Your task to perform on an android device: Open the Play Movies app and select the watchlist tab. Image 0: 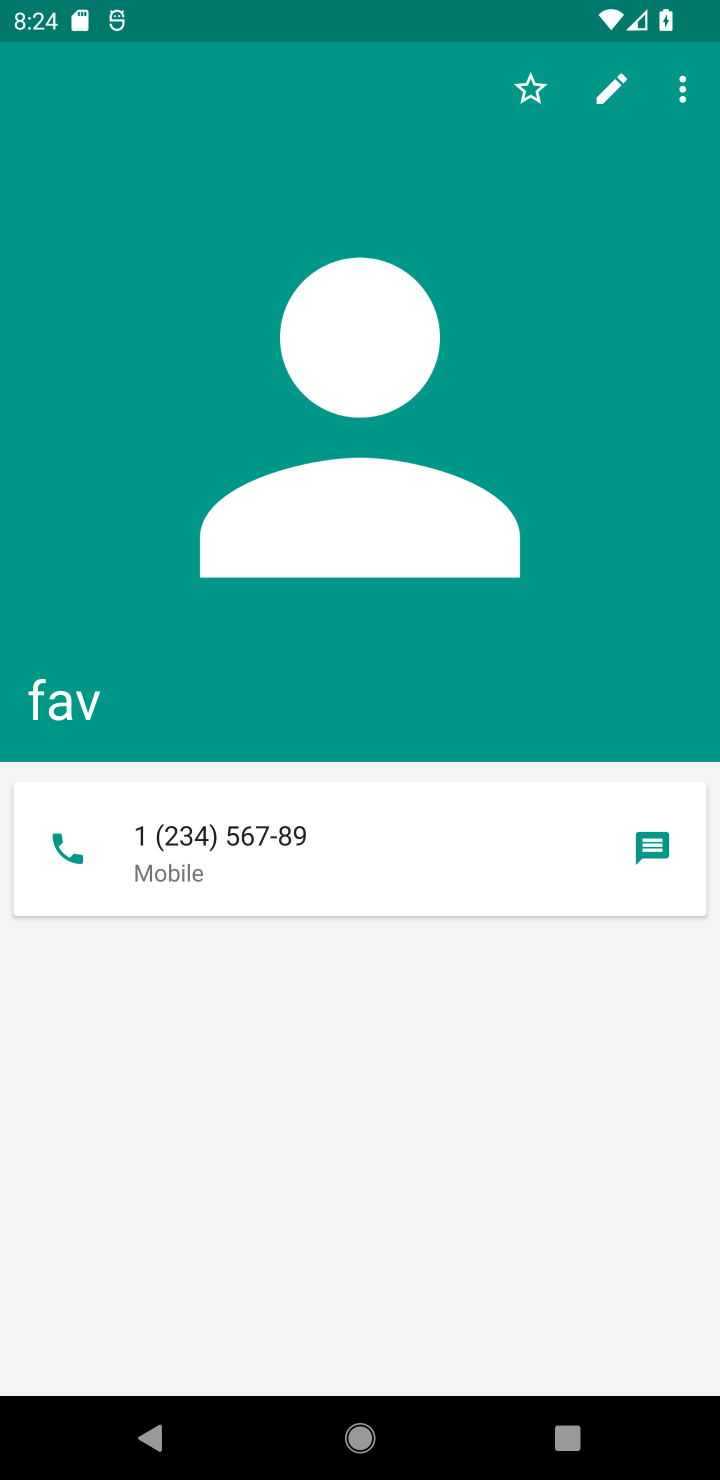
Step 0: press home button
Your task to perform on an android device: Open the Play Movies app and select the watchlist tab. Image 1: 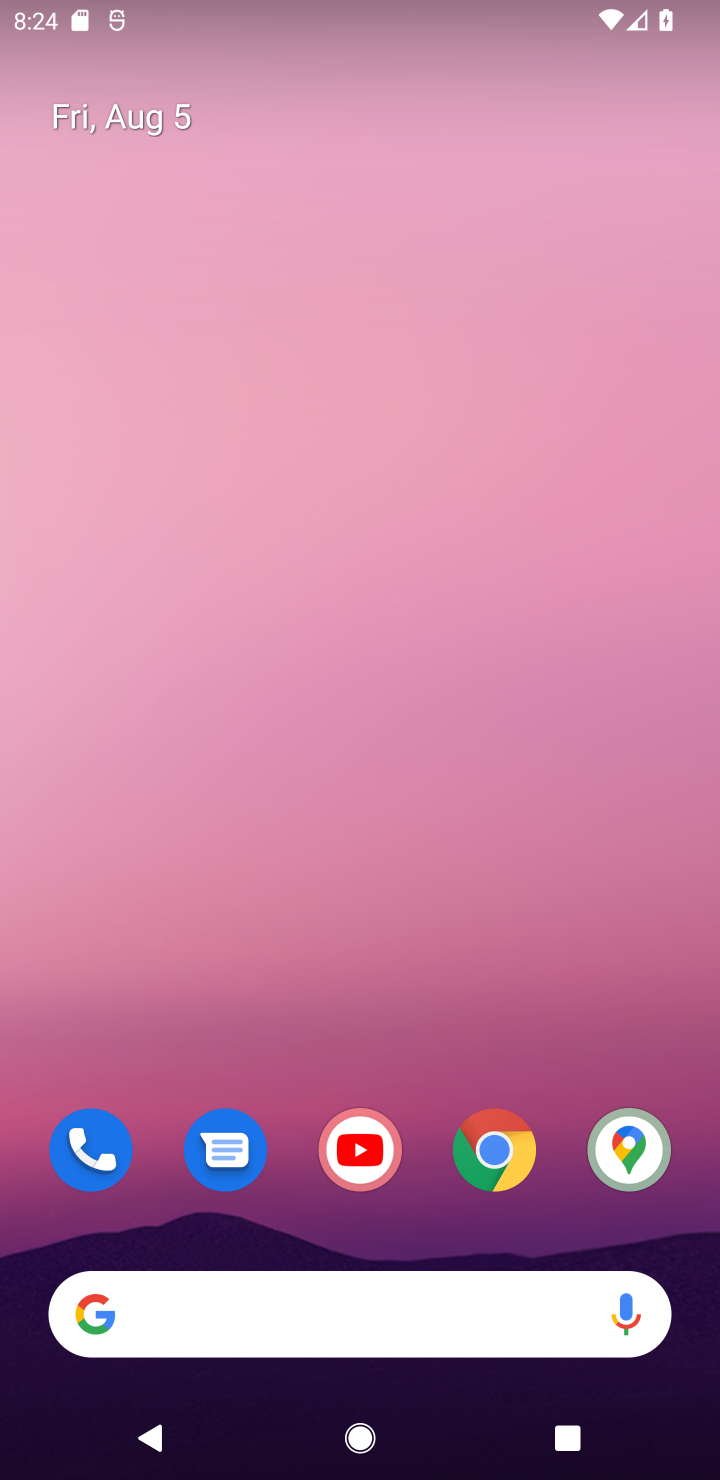
Step 1: task complete